Your task to perform on an android device: Open maps Image 0: 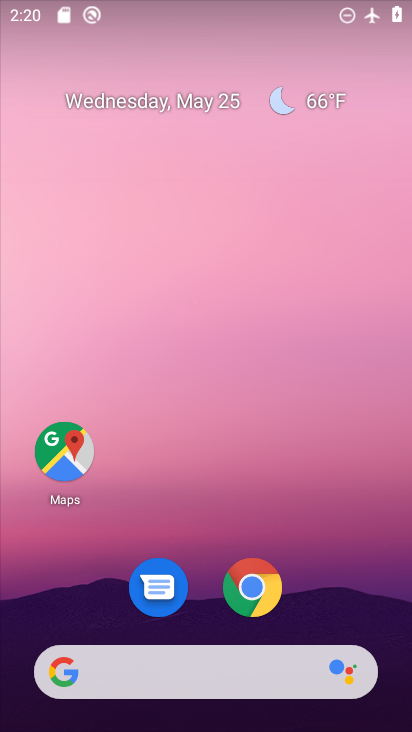
Step 0: drag from (342, 608) to (346, 215)
Your task to perform on an android device: Open maps Image 1: 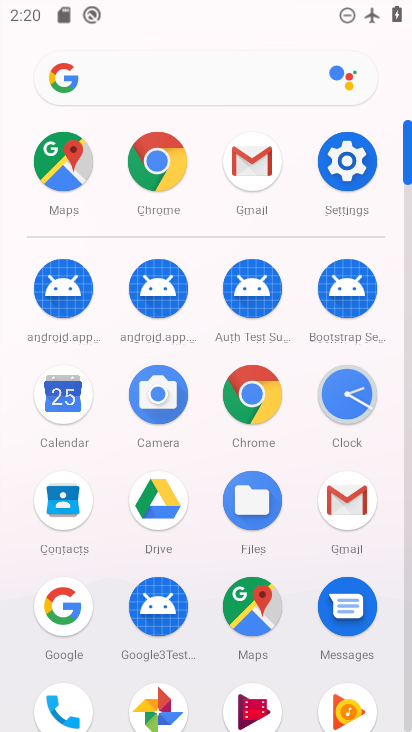
Step 1: click (252, 600)
Your task to perform on an android device: Open maps Image 2: 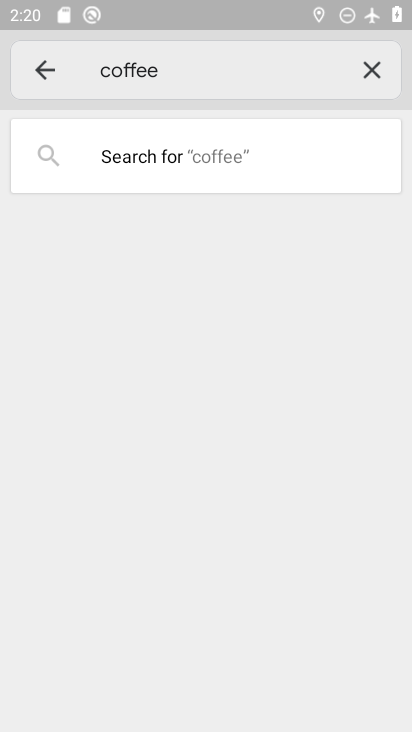
Step 2: task complete